Your task to perform on an android device: Open Wikipedia Image 0: 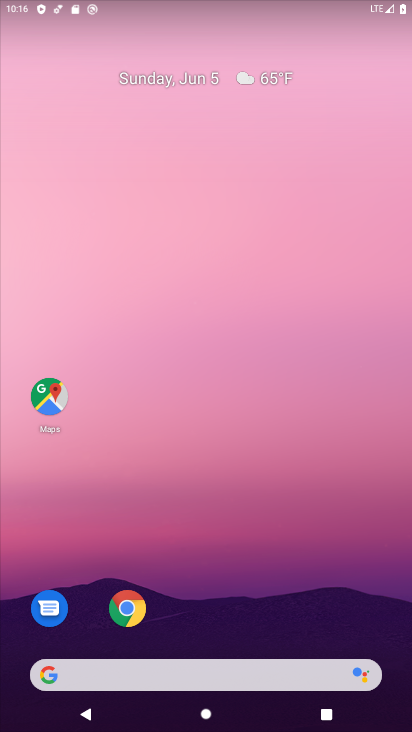
Step 0: click (139, 610)
Your task to perform on an android device: Open Wikipedia Image 1: 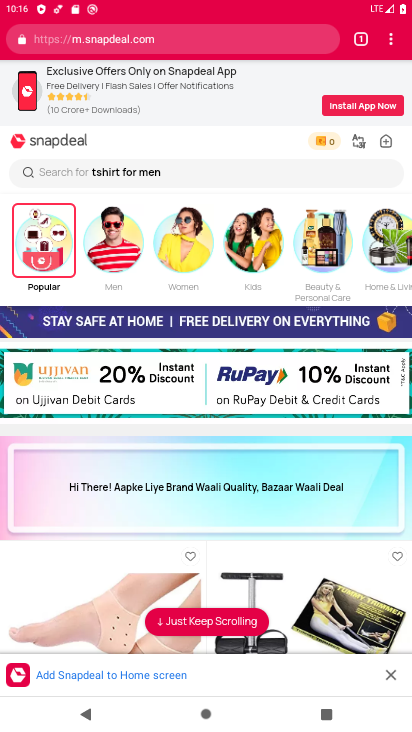
Step 1: click (106, 28)
Your task to perform on an android device: Open Wikipedia Image 2: 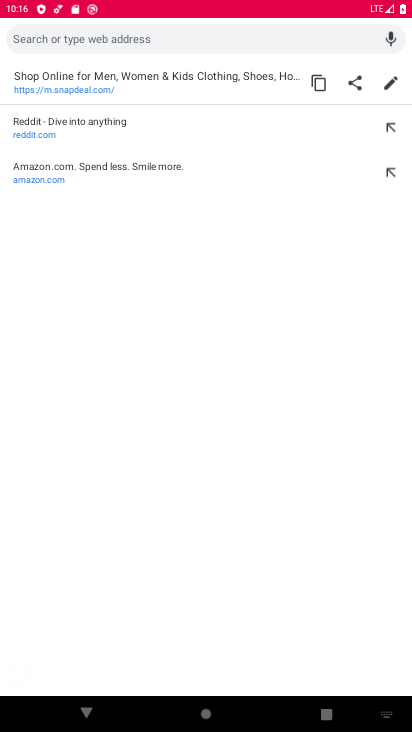
Step 2: type "wikipedia"
Your task to perform on an android device: Open Wikipedia Image 3: 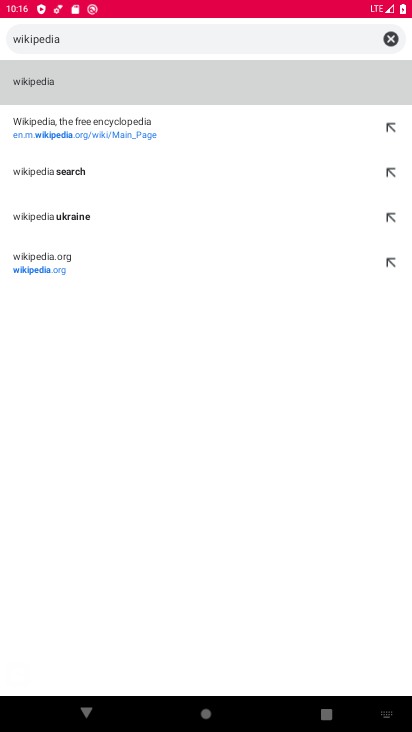
Step 3: click (78, 253)
Your task to perform on an android device: Open Wikipedia Image 4: 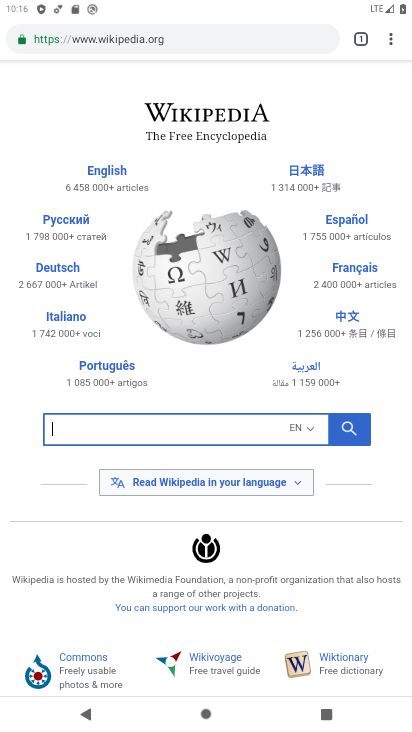
Step 4: task complete